Your task to perform on an android device: Open calendar and show me the fourth week of next month Image 0: 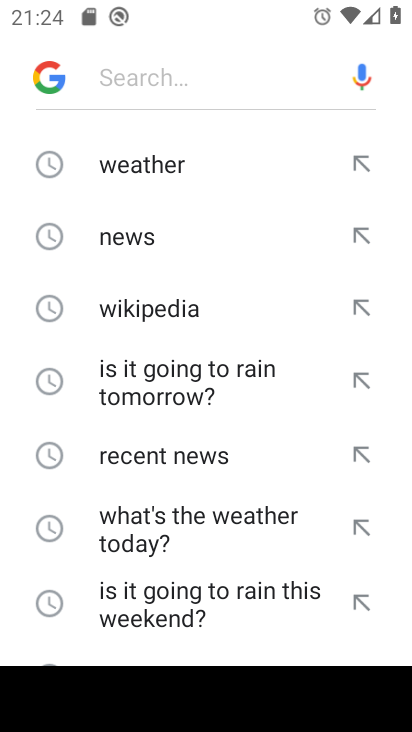
Step 0: press home button
Your task to perform on an android device: Open calendar and show me the fourth week of next month Image 1: 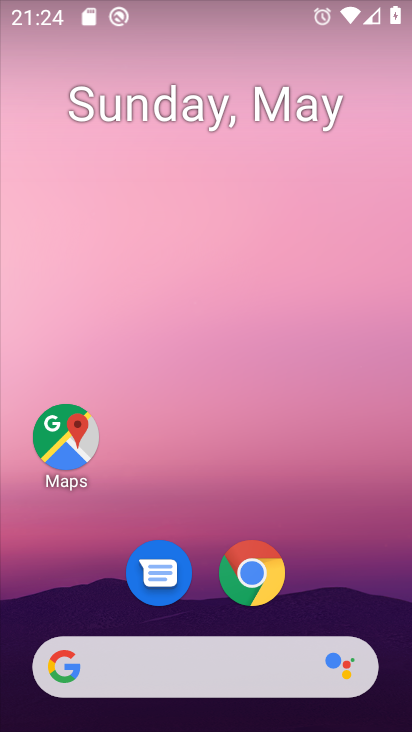
Step 1: drag from (294, 539) to (257, 24)
Your task to perform on an android device: Open calendar and show me the fourth week of next month Image 2: 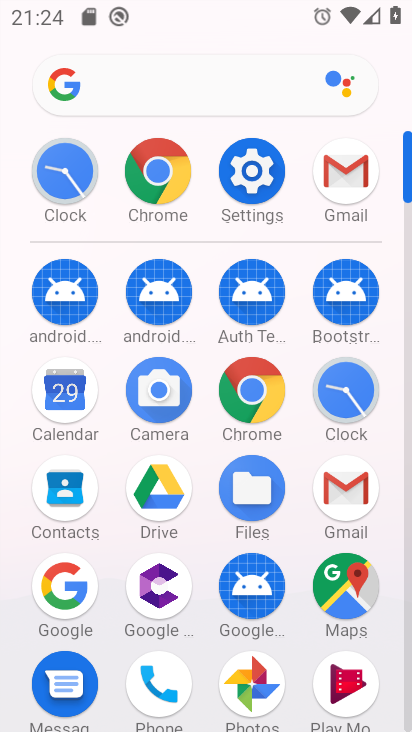
Step 2: click (67, 385)
Your task to perform on an android device: Open calendar and show me the fourth week of next month Image 3: 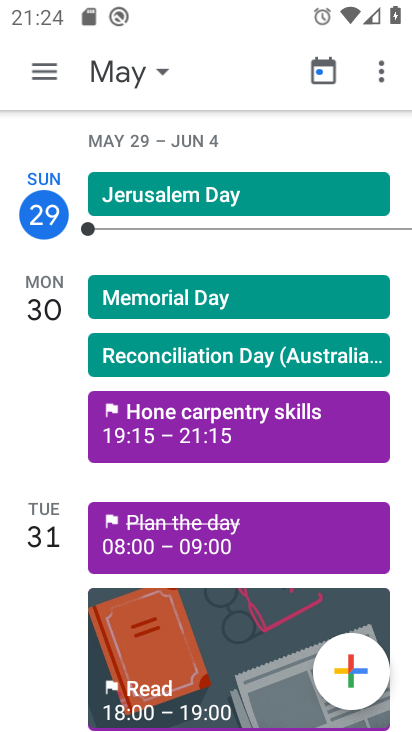
Step 3: click (39, 76)
Your task to perform on an android device: Open calendar and show me the fourth week of next month Image 4: 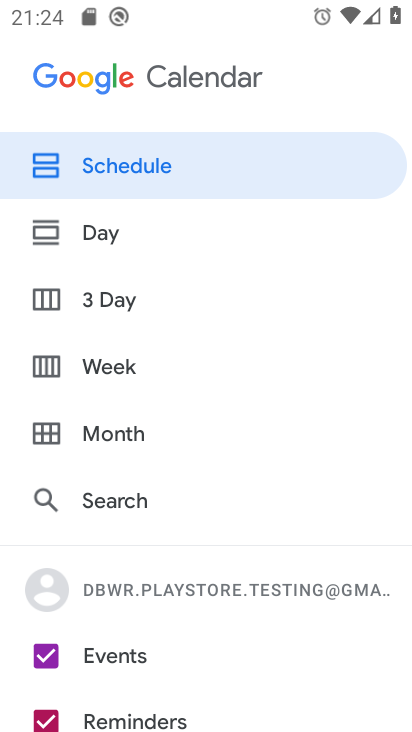
Step 4: click (111, 364)
Your task to perform on an android device: Open calendar and show me the fourth week of next month Image 5: 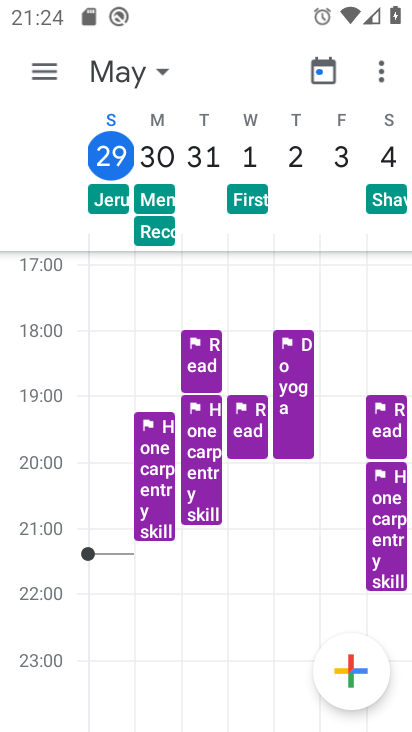
Step 5: task complete